Your task to perform on an android device: What's the weather? Image 0: 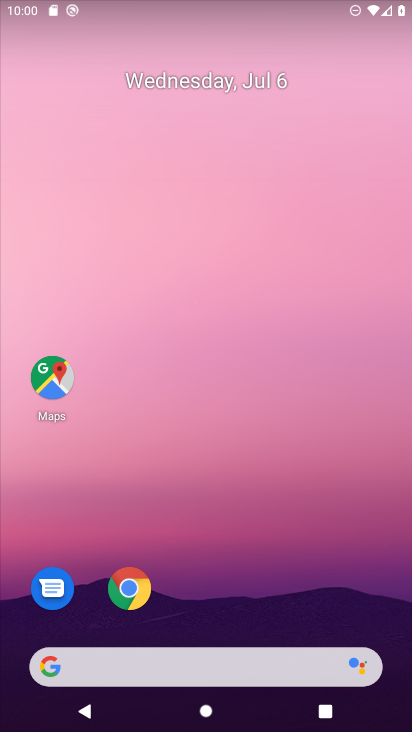
Step 0: drag from (283, 555) to (271, 92)
Your task to perform on an android device: What's the weather? Image 1: 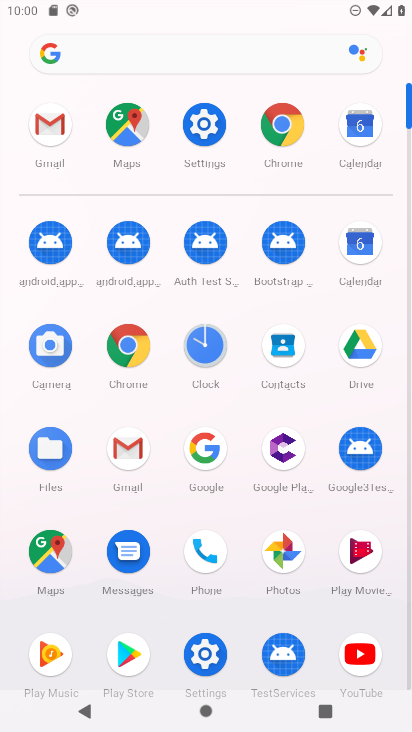
Step 1: click (145, 55)
Your task to perform on an android device: What's the weather? Image 2: 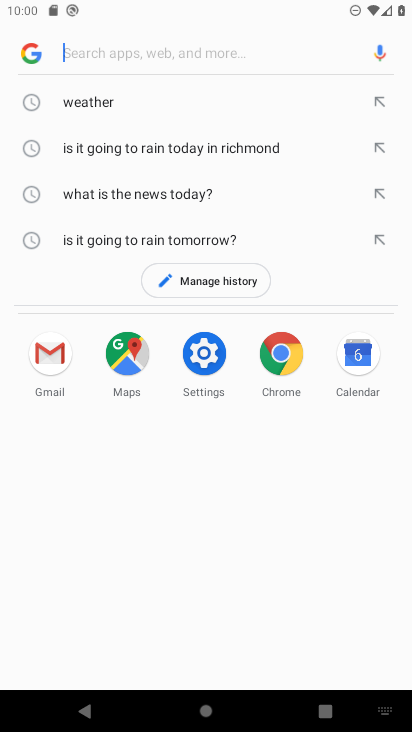
Step 2: click (127, 90)
Your task to perform on an android device: What's the weather? Image 3: 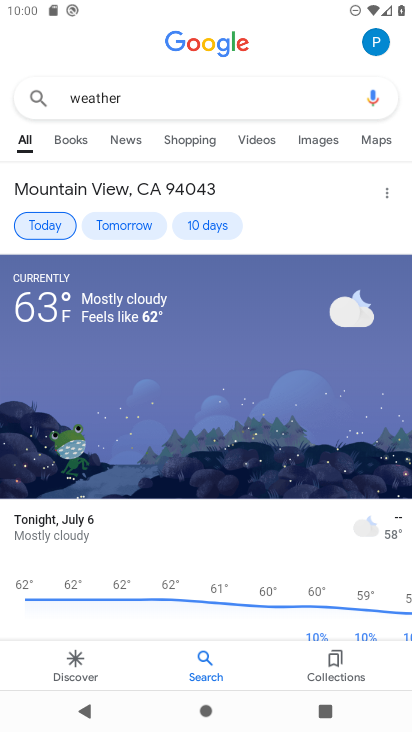
Step 3: task complete